Your task to perform on an android device: Search for the best rated book on Goodreads. Image 0: 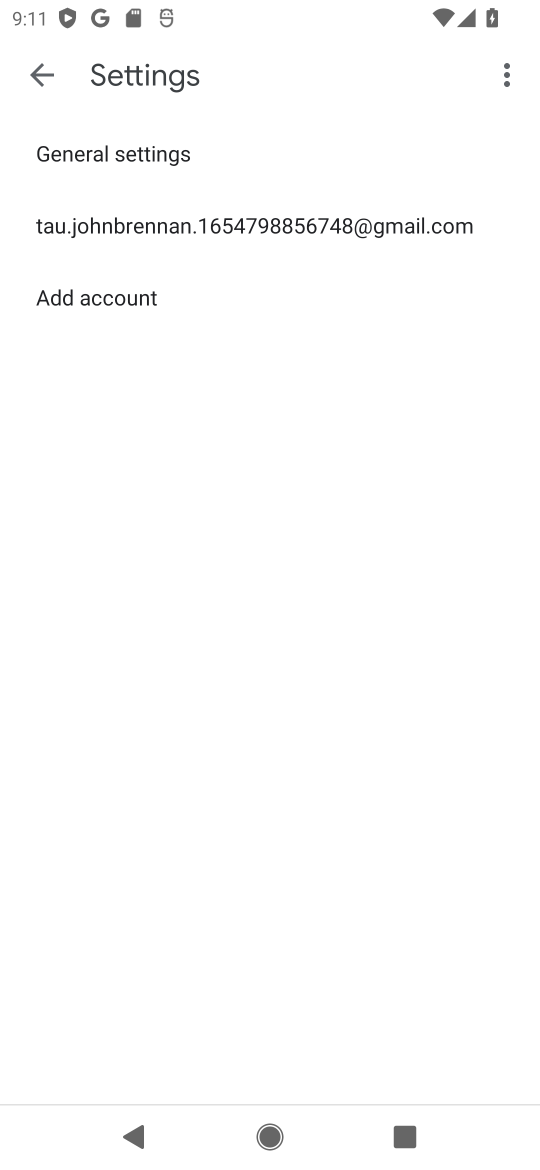
Step 0: press home button
Your task to perform on an android device: Search for the best rated book on Goodreads. Image 1: 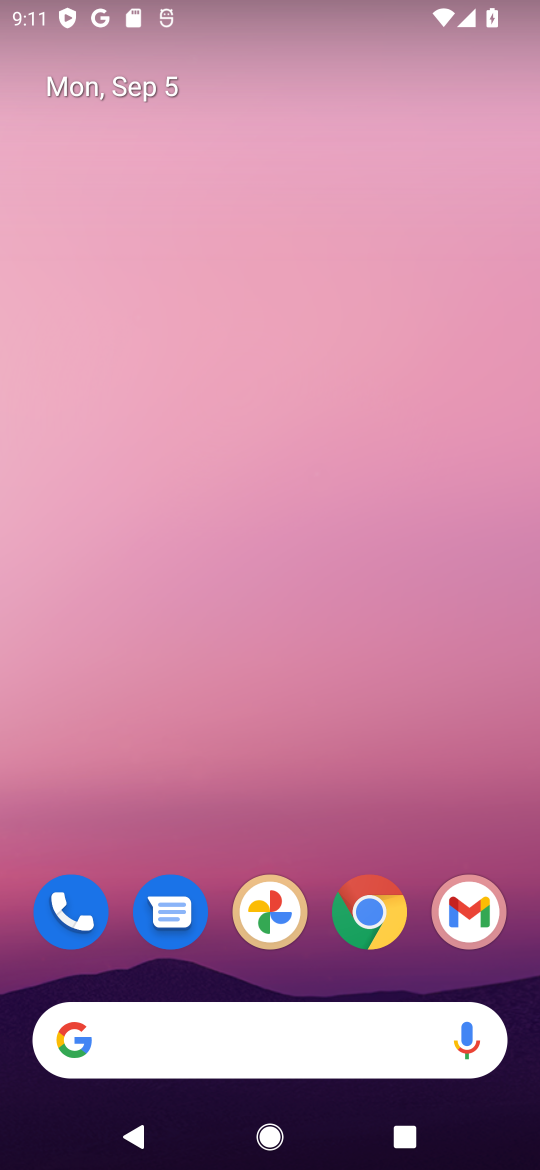
Step 1: click (355, 908)
Your task to perform on an android device: Search for the best rated book on Goodreads. Image 2: 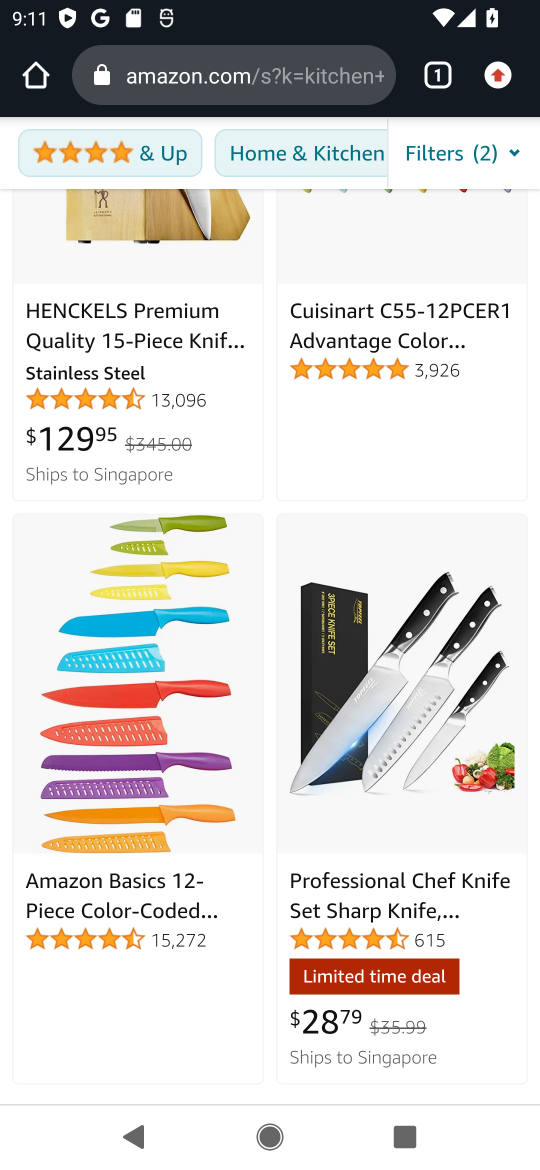
Step 2: click (297, 61)
Your task to perform on an android device: Search for the best rated book on Goodreads. Image 3: 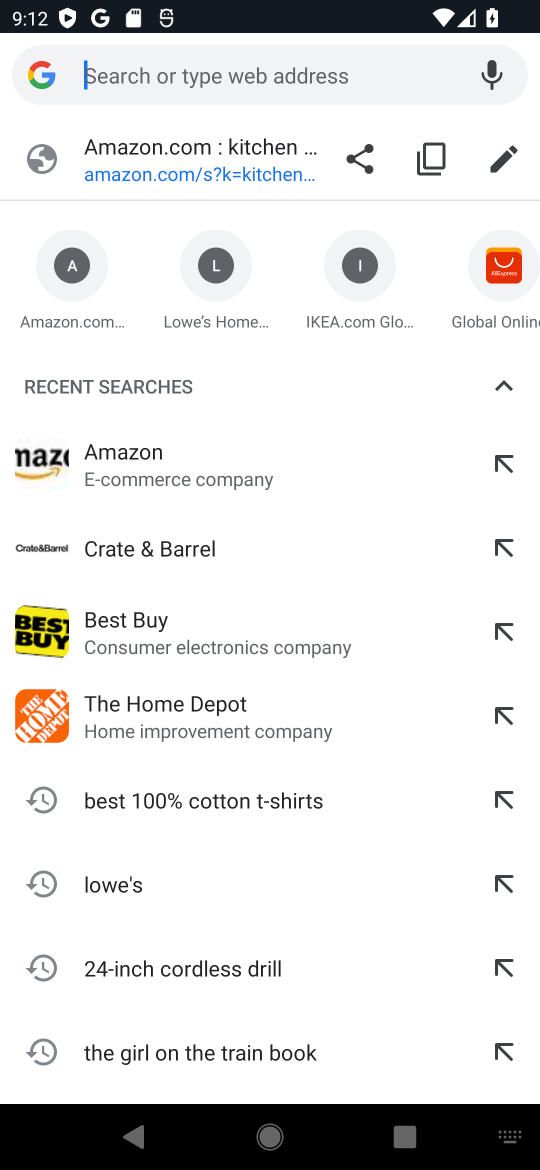
Step 3: type "best rated book on Goodreads"
Your task to perform on an android device: Search for the best rated book on Goodreads. Image 4: 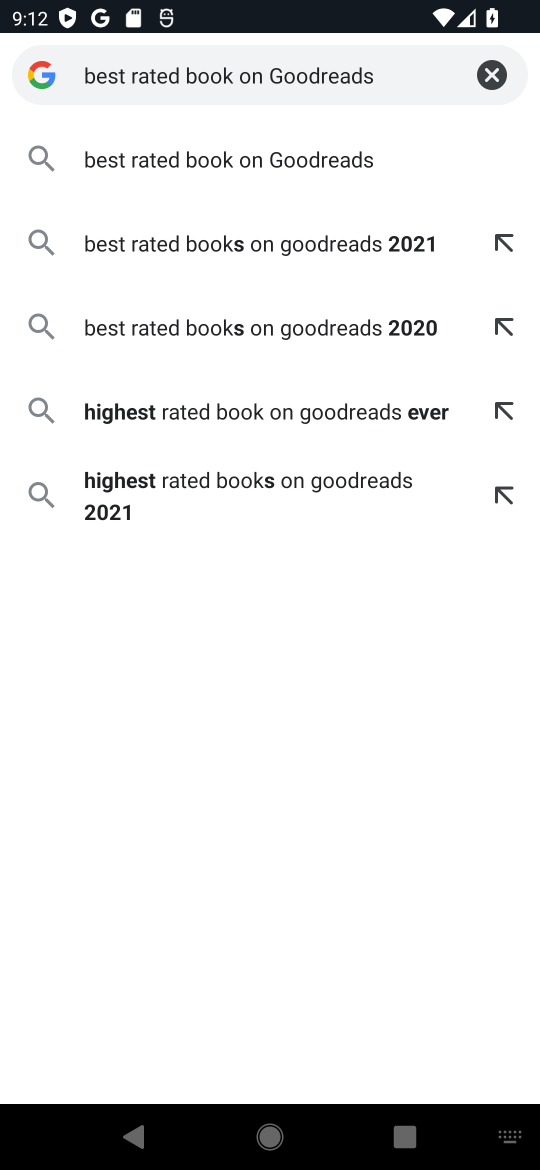
Step 4: press enter
Your task to perform on an android device: Search for the best rated book on Goodreads. Image 5: 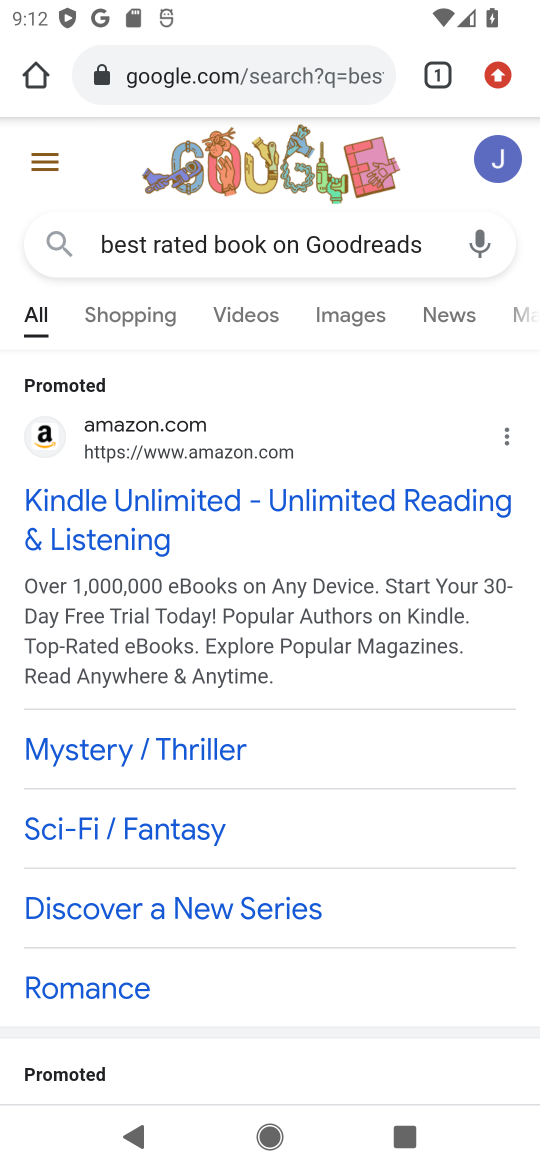
Step 5: drag from (430, 687) to (454, 374)
Your task to perform on an android device: Search for the best rated book on Goodreads. Image 6: 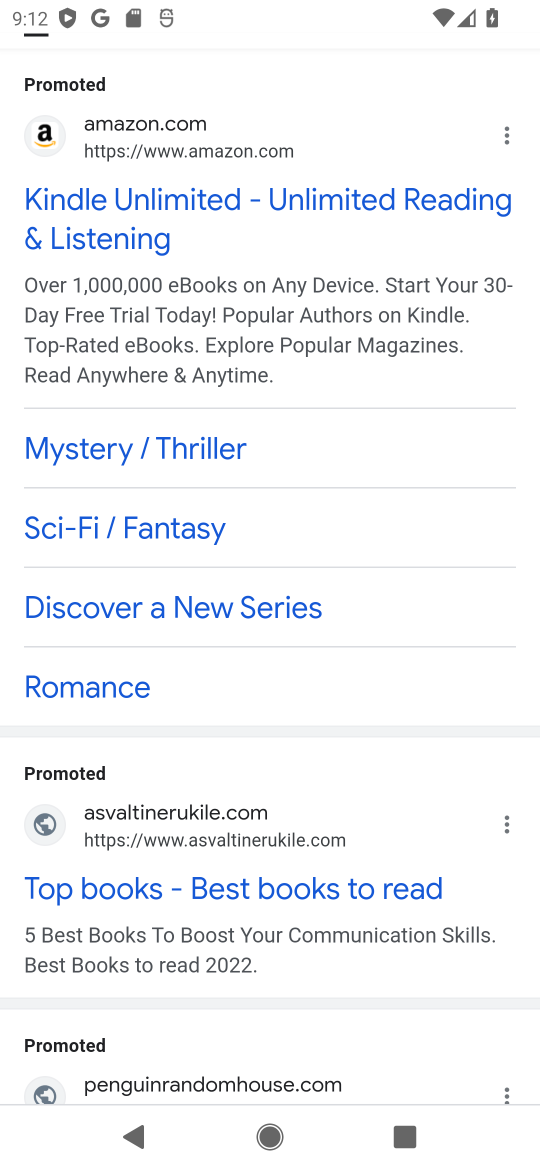
Step 6: drag from (369, 957) to (374, 447)
Your task to perform on an android device: Search for the best rated book on Goodreads. Image 7: 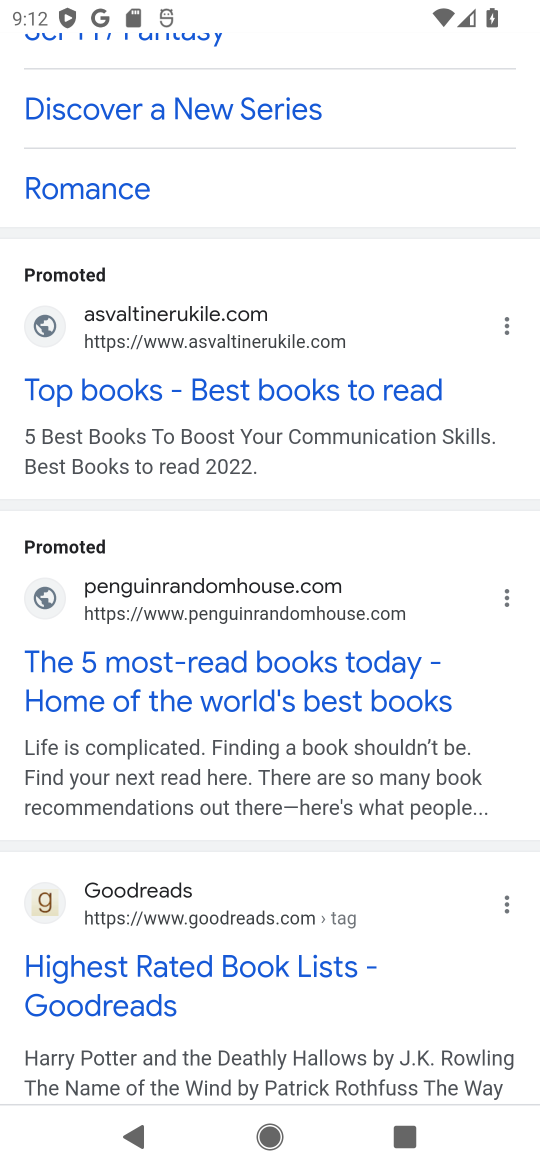
Step 7: drag from (348, 987) to (397, 650)
Your task to perform on an android device: Search for the best rated book on Goodreads. Image 8: 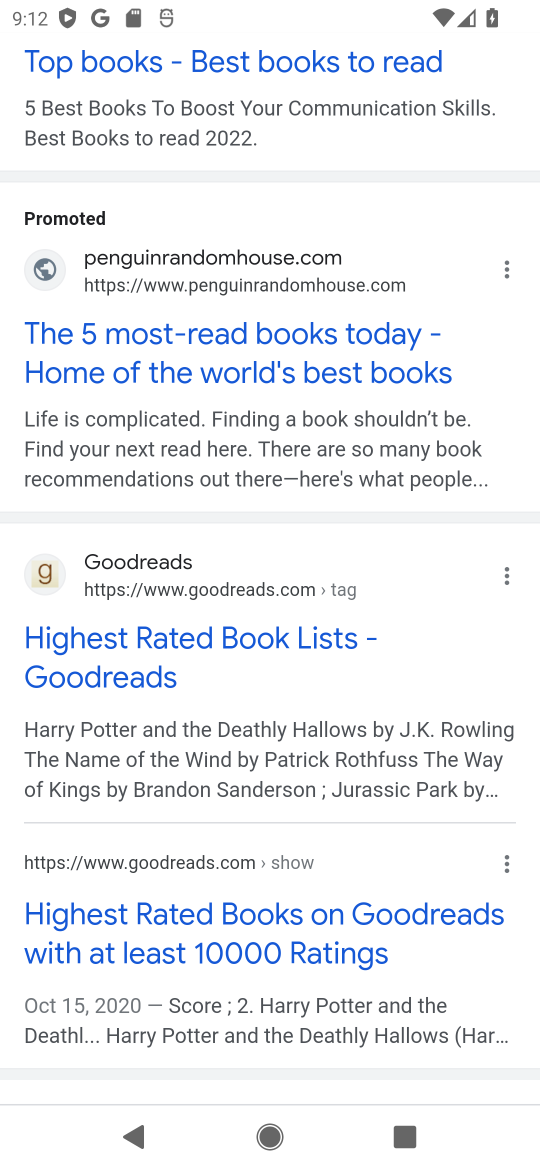
Step 8: click (127, 666)
Your task to perform on an android device: Search for the best rated book on Goodreads. Image 9: 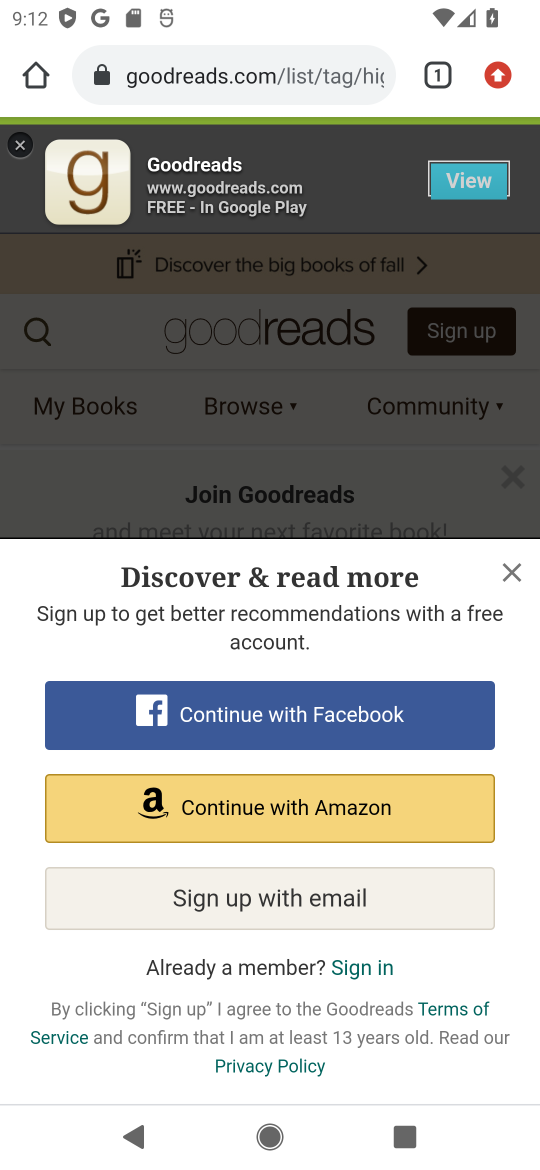
Step 9: click (498, 569)
Your task to perform on an android device: Search for the best rated book on Goodreads. Image 10: 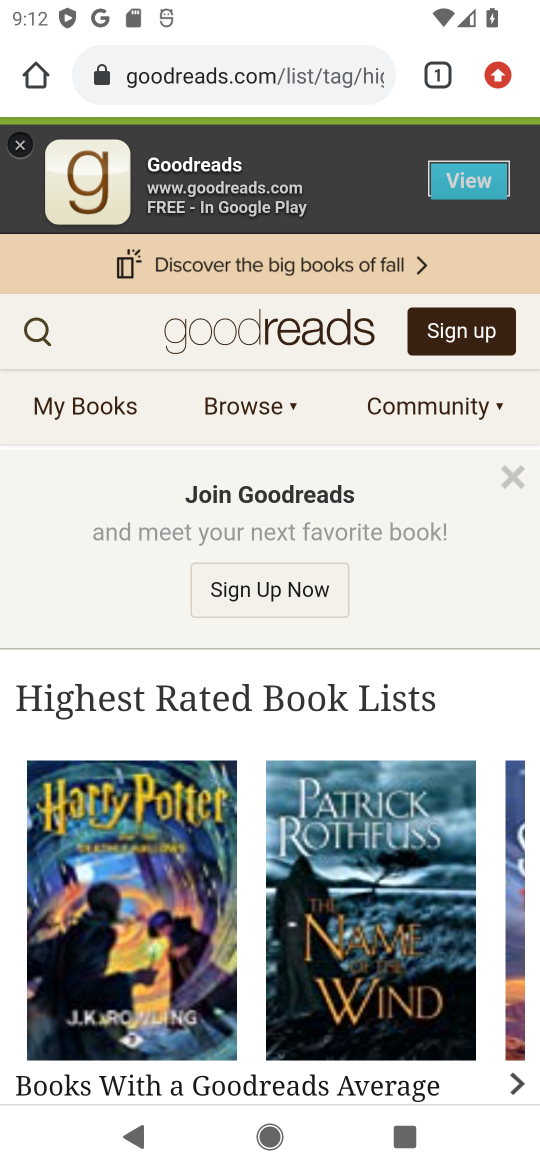
Step 10: drag from (410, 777) to (391, 403)
Your task to perform on an android device: Search for the best rated book on Goodreads. Image 11: 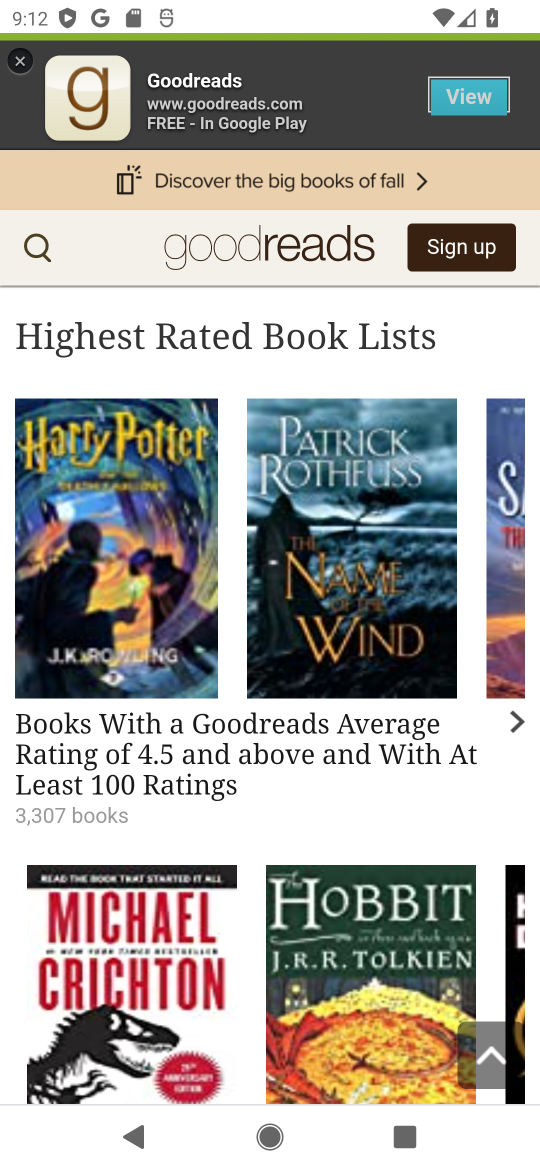
Step 11: drag from (337, 950) to (334, 390)
Your task to perform on an android device: Search for the best rated book on Goodreads. Image 12: 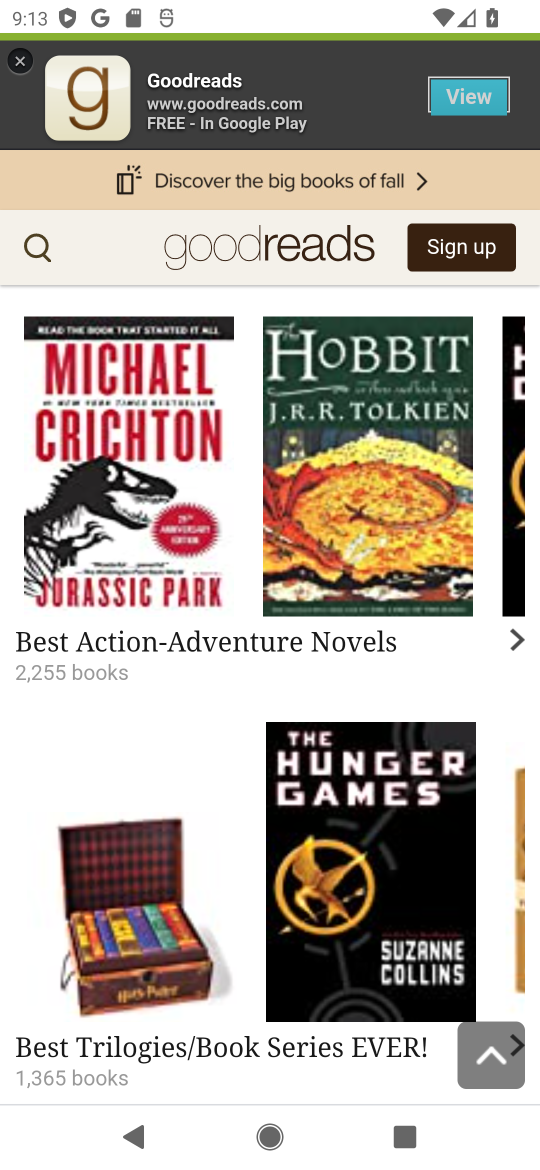
Step 12: drag from (349, 720) to (347, 625)
Your task to perform on an android device: Search for the best rated book on Goodreads. Image 13: 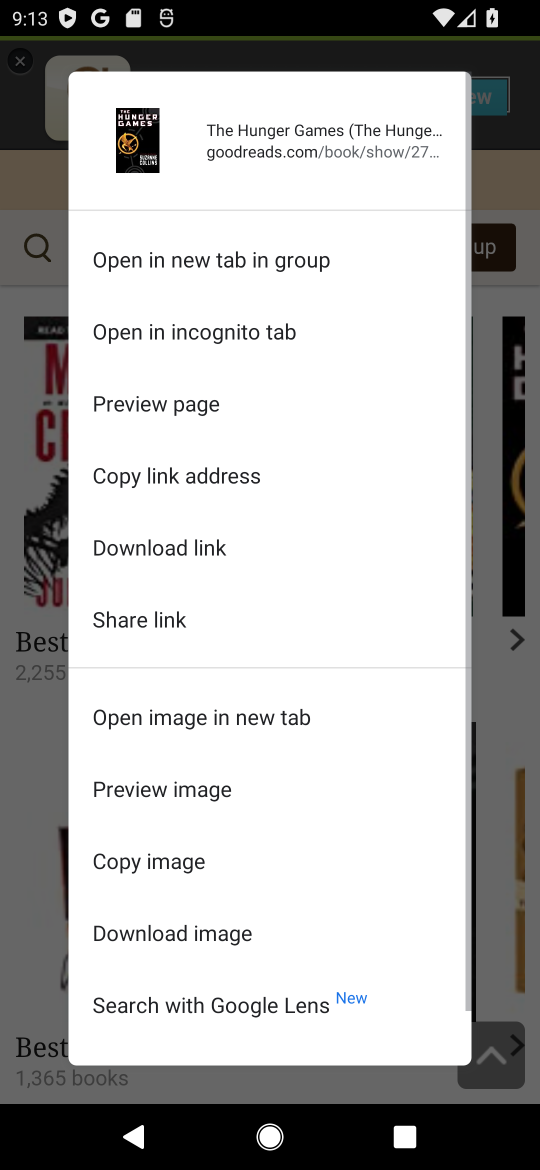
Step 13: click (511, 638)
Your task to perform on an android device: Search for the best rated book on Goodreads. Image 14: 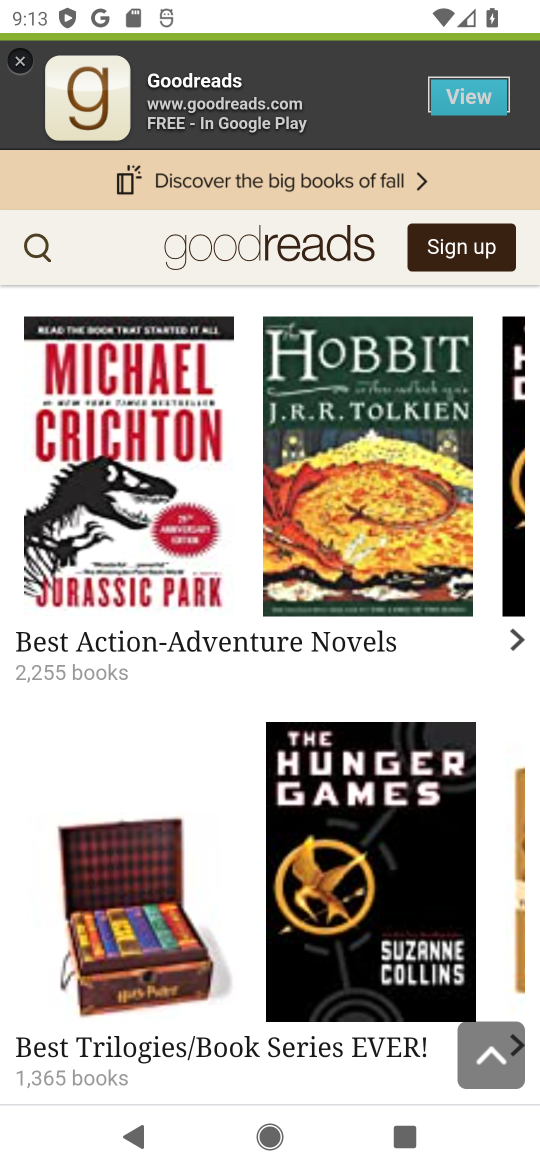
Step 14: drag from (381, 681) to (382, 619)
Your task to perform on an android device: Search for the best rated book on Goodreads. Image 15: 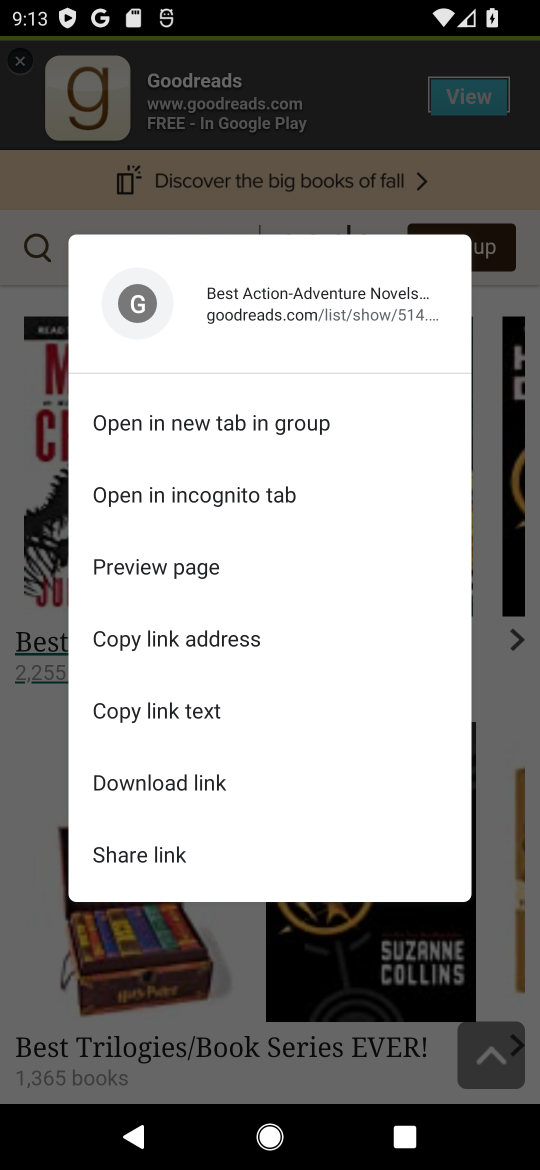
Step 15: click (506, 698)
Your task to perform on an android device: Search for the best rated book on Goodreads. Image 16: 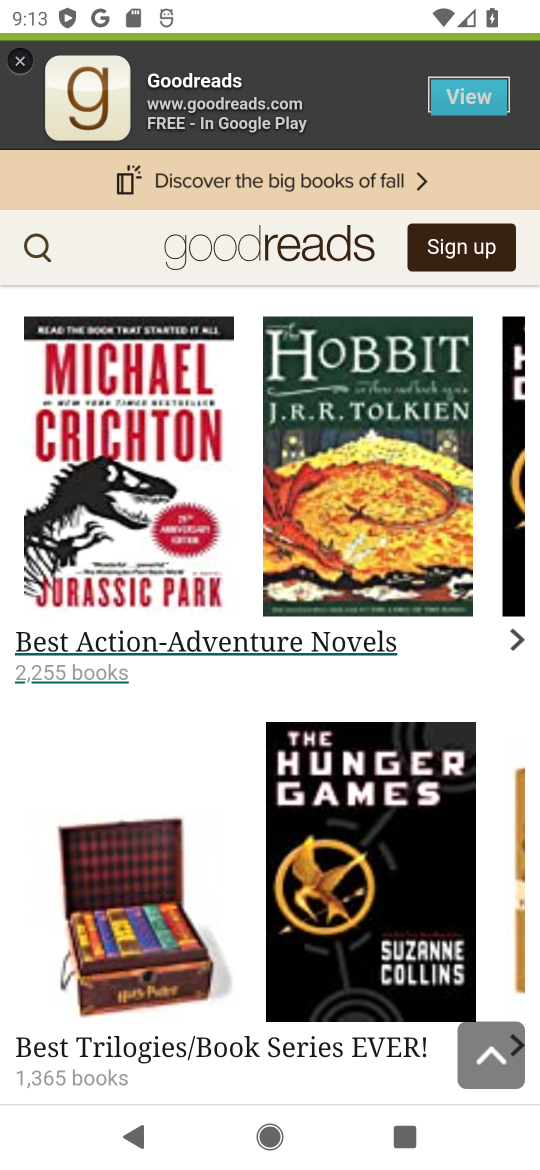
Step 16: task complete